Your task to perform on an android device: Go to battery settings Image 0: 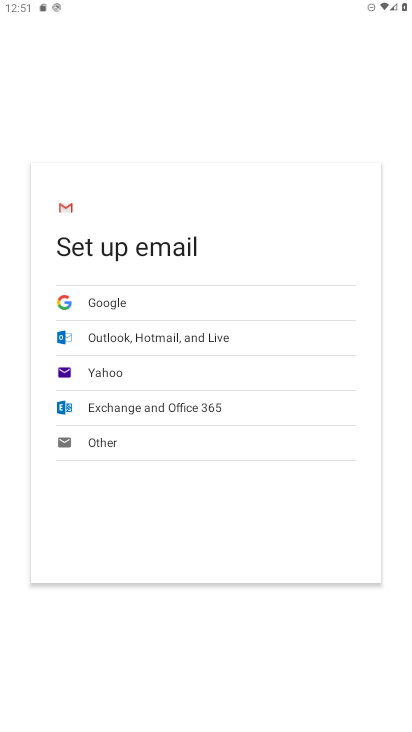
Step 0: press home button
Your task to perform on an android device: Go to battery settings Image 1: 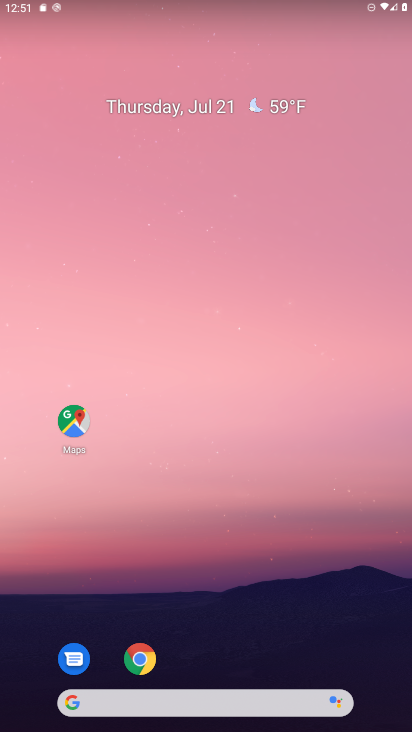
Step 1: drag from (59, 434) to (237, 59)
Your task to perform on an android device: Go to battery settings Image 2: 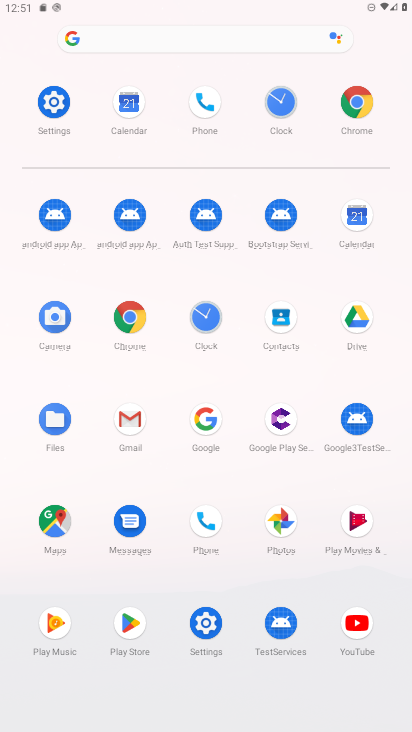
Step 2: click (41, 110)
Your task to perform on an android device: Go to battery settings Image 3: 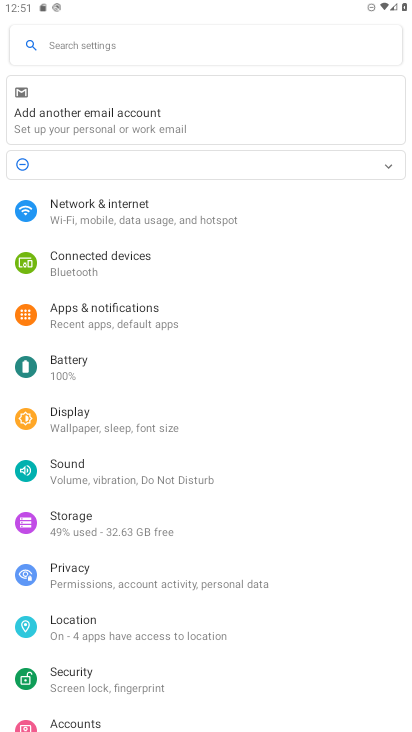
Step 3: click (62, 362)
Your task to perform on an android device: Go to battery settings Image 4: 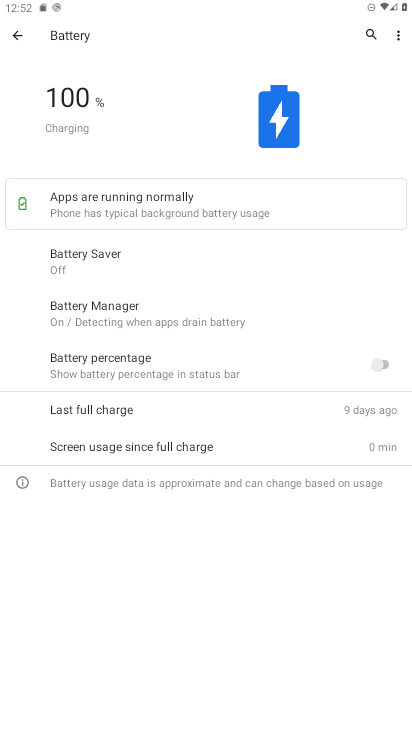
Step 4: task complete